Your task to perform on an android device: Go to Google Image 0: 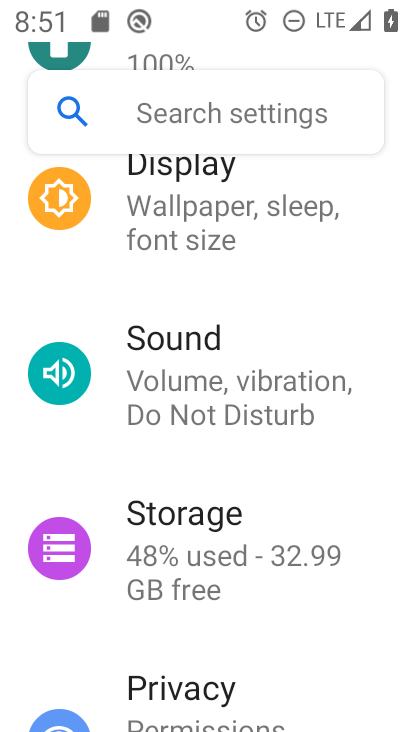
Step 0: press home button
Your task to perform on an android device: Go to Google Image 1: 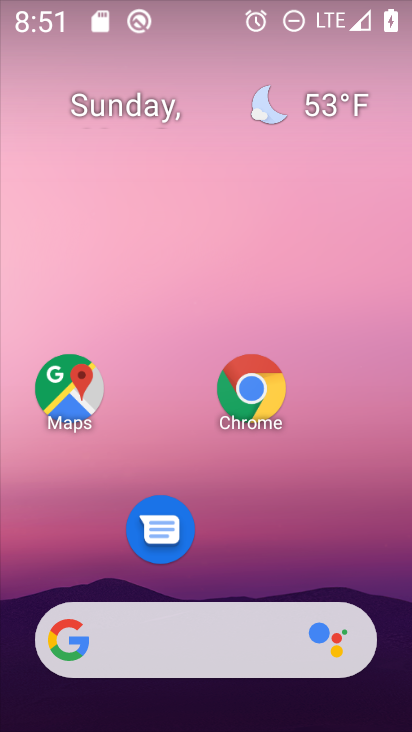
Step 1: click (62, 643)
Your task to perform on an android device: Go to Google Image 2: 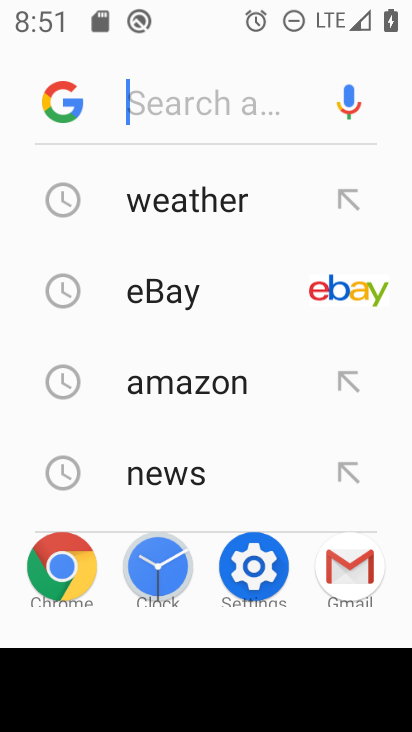
Step 2: click (55, 112)
Your task to perform on an android device: Go to Google Image 3: 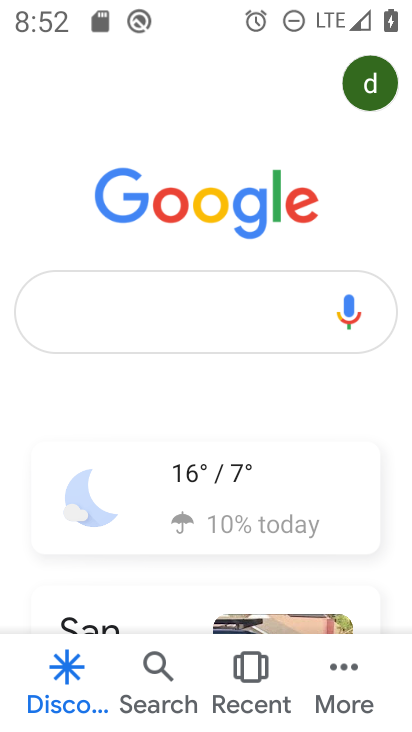
Step 3: task complete